Your task to perform on an android device: check out phone information Image 0: 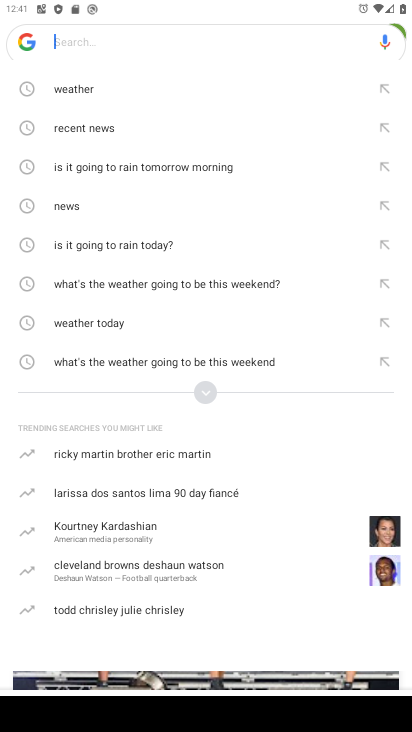
Step 0: press home button
Your task to perform on an android device: check out phone information Image 1: 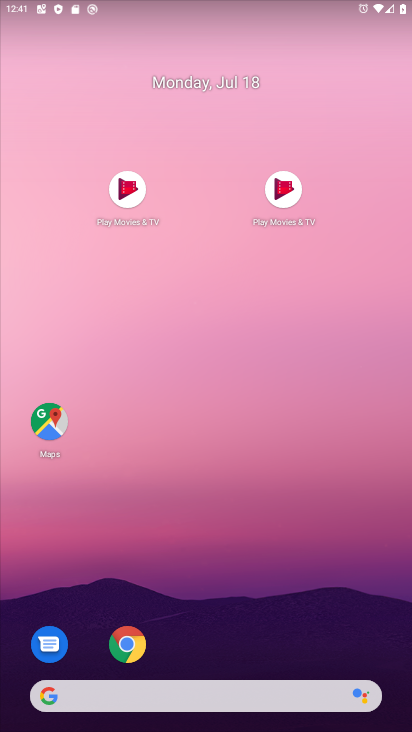
Step 1: drag from (335, 581) to (359, 278)
Your task to perform on an android device: check out phone information Image 2: 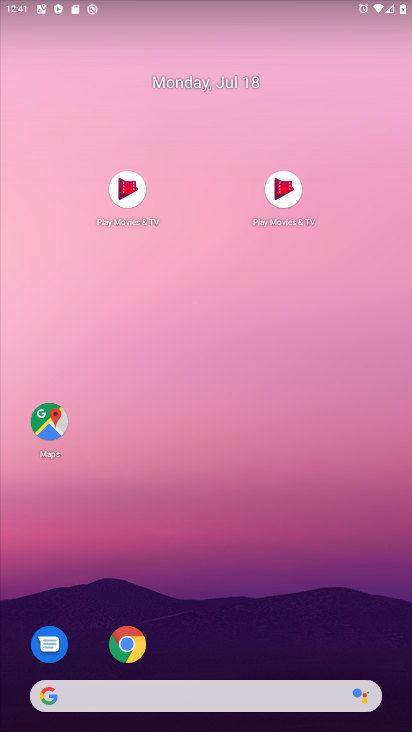
Step 2: drag from (266, 533) to (253, 250)
Your task to perform on an android device: check out phone information Image 3: 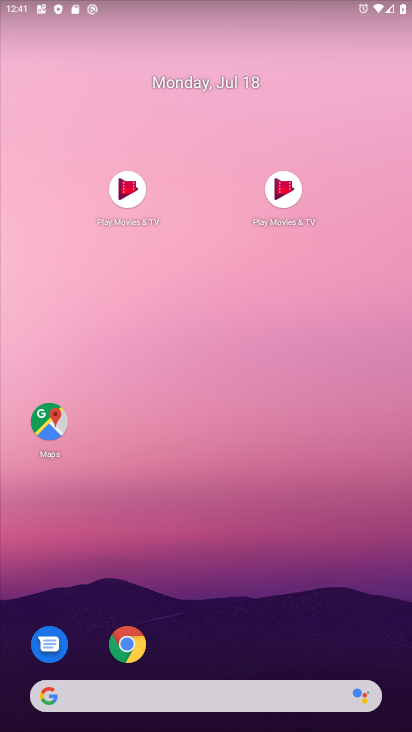
Step 3: drag from (226, 653) to (233, 185)
Your task to perform on an android device: check out phone information Image 4: 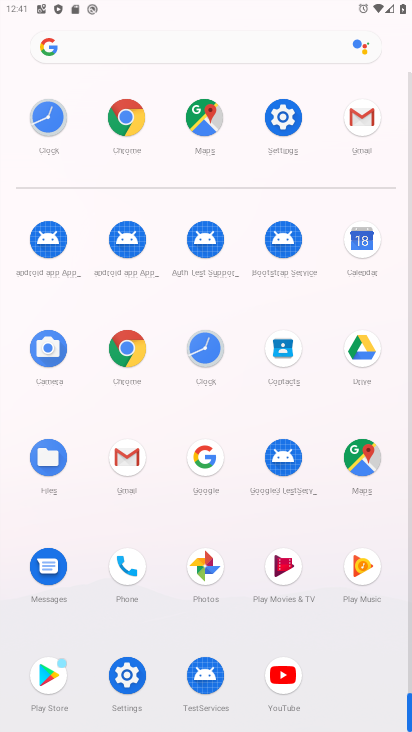
Step 4: click (129, 568)
Your task to perform on an android device: check out phone information Image 5: 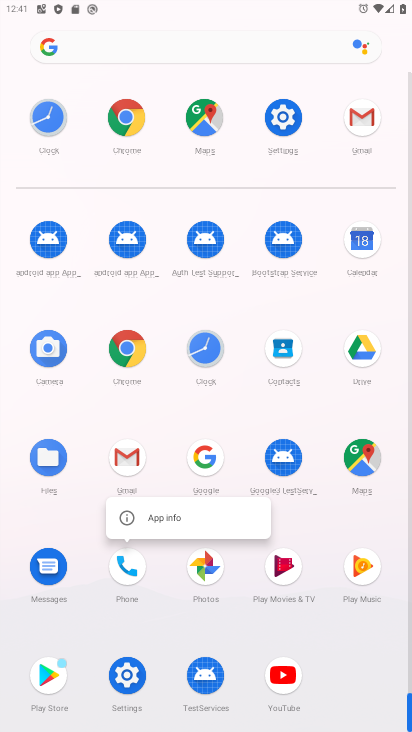
Step 5: click (156, 525)
Your task to perform on an android device: check out phone information Image 6: 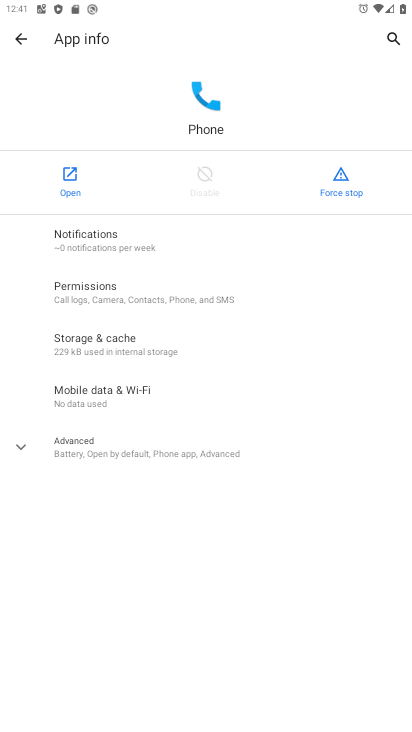
Step 6: task complete